Your task to perform on an android device: Open settings on Google Maps Image 0: 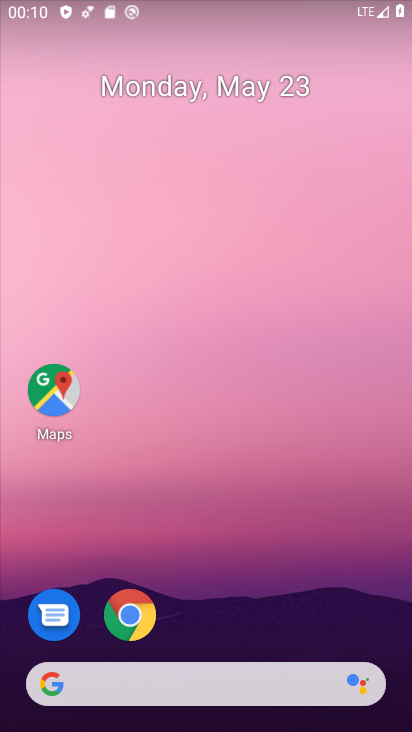
Step 0: click (65, 385)
Your task to perform on an android device: Open settings on Google Maps Image 1: 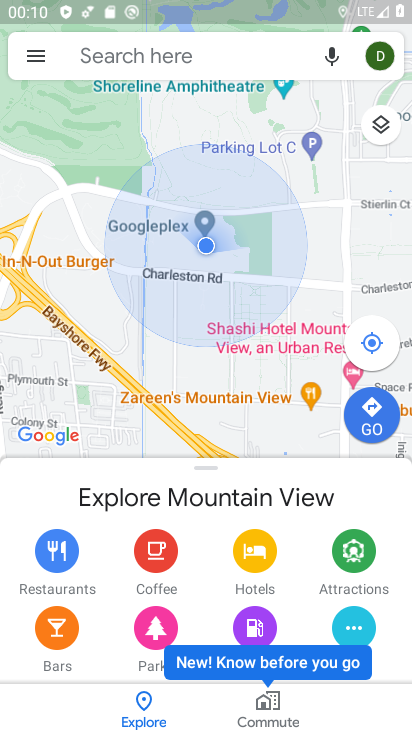
Step 1: task complete